Your task to perform on an android device: Search for seafood restaurants on Google Maps Image 0: 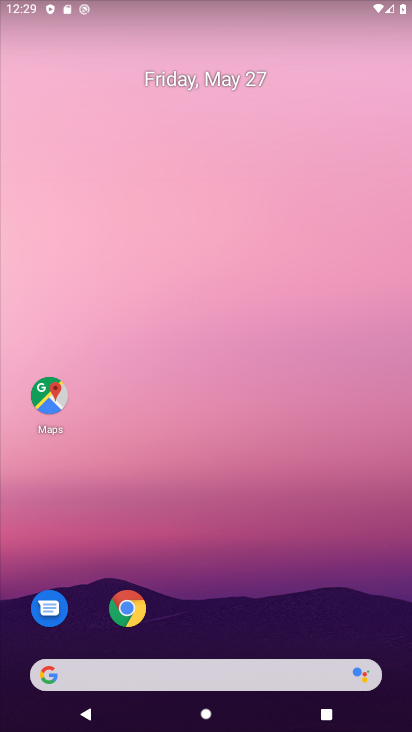
Step 0: click (39, 389)
Your task to perform on an android device: Search for seafood restaurants on Google Maps Image 1: 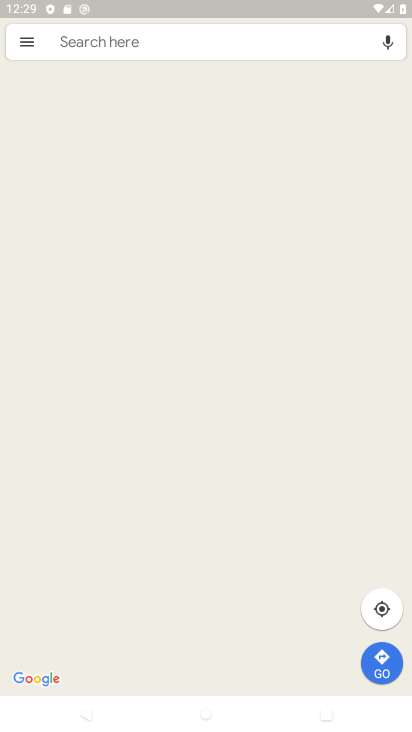
Step 1: click (153, 44)
Your task to perform on an android device: Search for seafood restaurants on Google Maps Image 2: 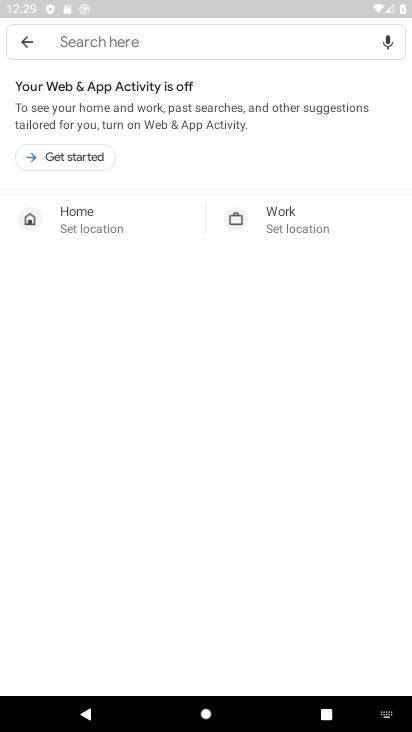
Step 2: click (87, 46)
Your task to perform on an android device: Search for seafood restaurants on Google Maps Image 3: 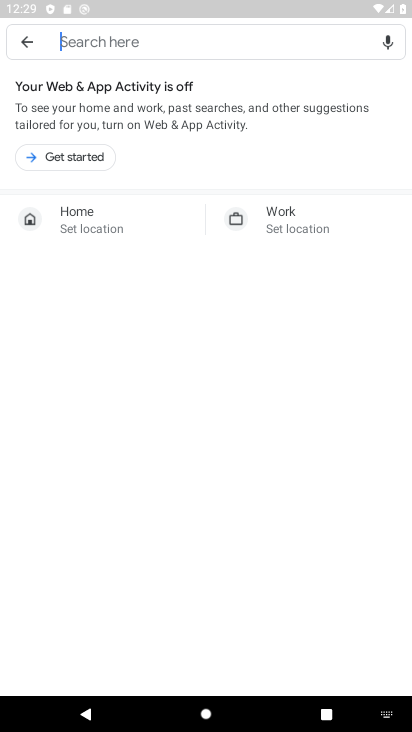
Step 3: click (90, 44)
Your task to perform on an android device: Search for seafood restaurants on Google Maps Image 4: 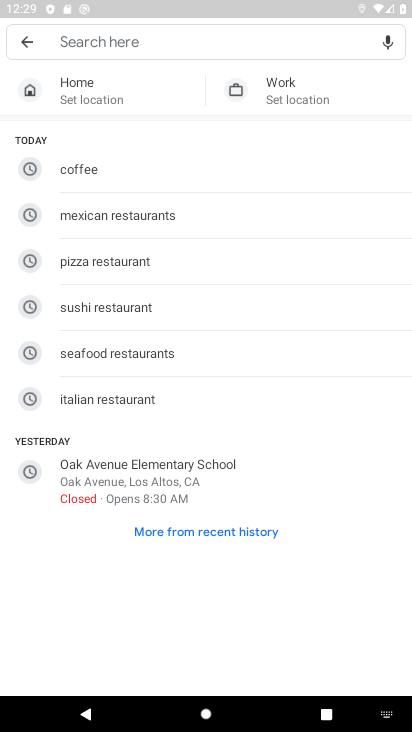
Step 4: type "seafood"
Your task to perform on an android device: Search for seafood restaurants on Google Maps Image 5: 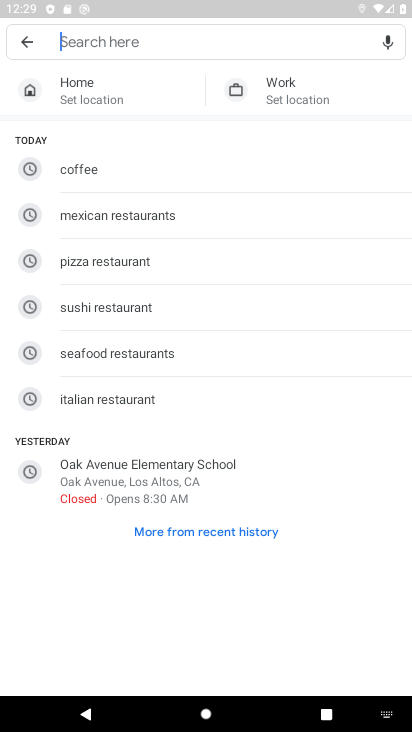
Step 5: click (142, 345)
Your task to perform on an android device: Search for seafood restaurants on Google Maps Image 6: 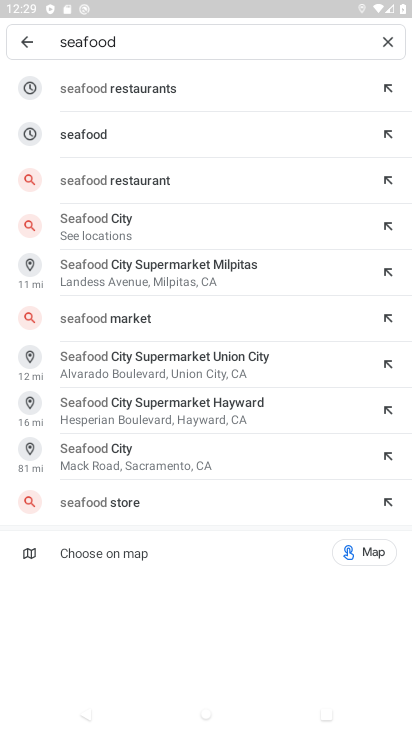
Step 6: click (131, 91)
Your task to perform on an android device: Search for seafood restaurants on Google Maps Image 7: 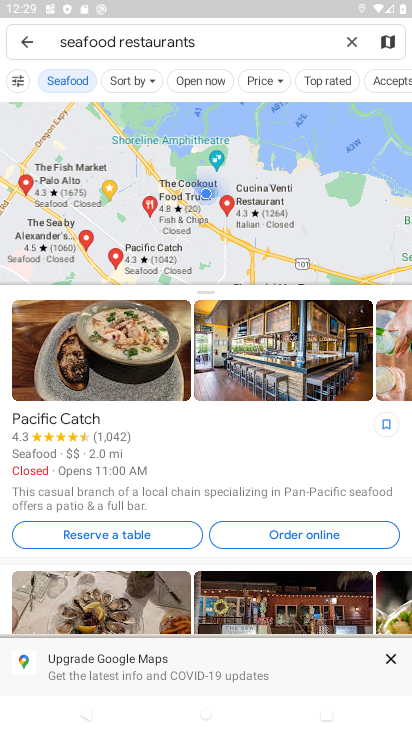
Step 7: task complete